Your task to perform on an android device: What is the news today? Image 0: 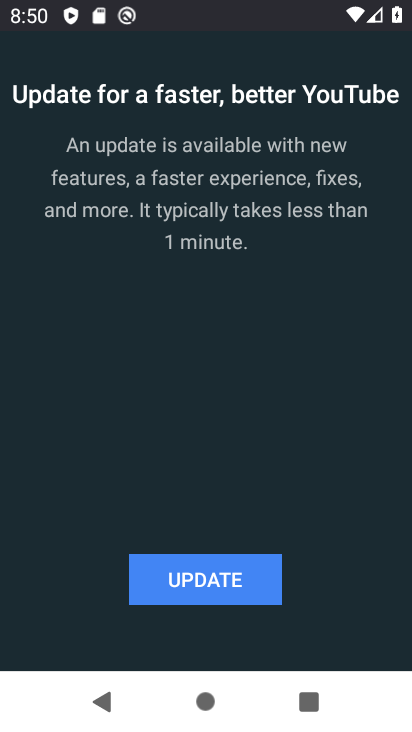
Step 0: press home button
Your task to perform on an android device: What is the news today? Image 1: 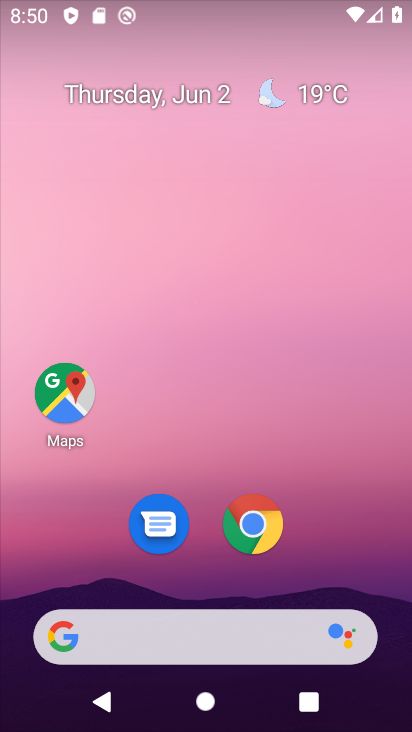
Step 1: click (217, 630)
Your task to perform on an android device: What is the news today? Image 2: 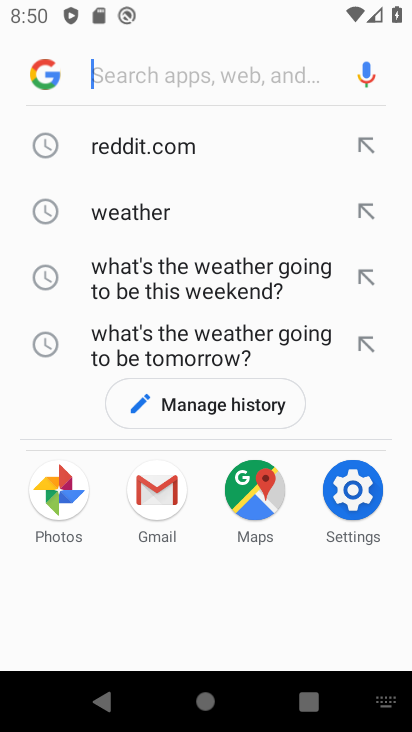
Step 2: type "News"
Your task to perform on an android device: What is the news today? Image 3: 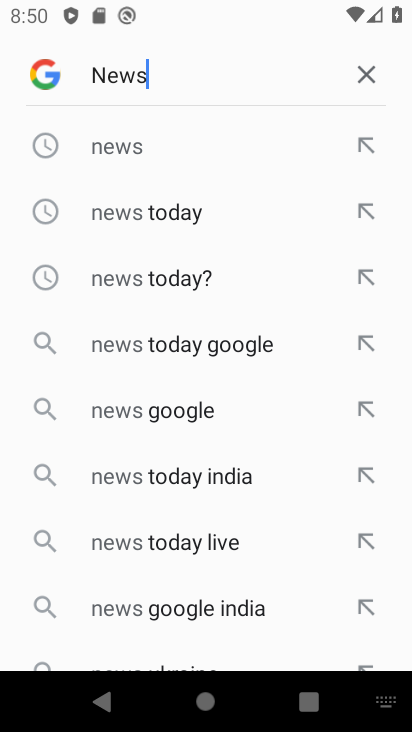
Step 3: click (175, 214)
Your task to perform on an android device: What is the news today? Image 4: 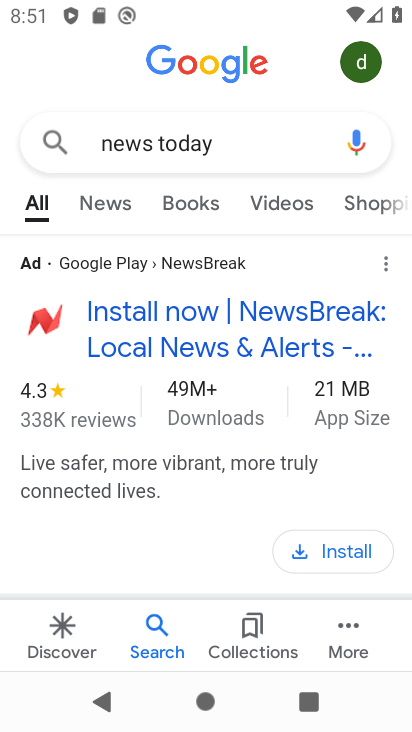
Step 4: click (120, 197)
Your task to perform on an android device: What is the news today? Image 5: 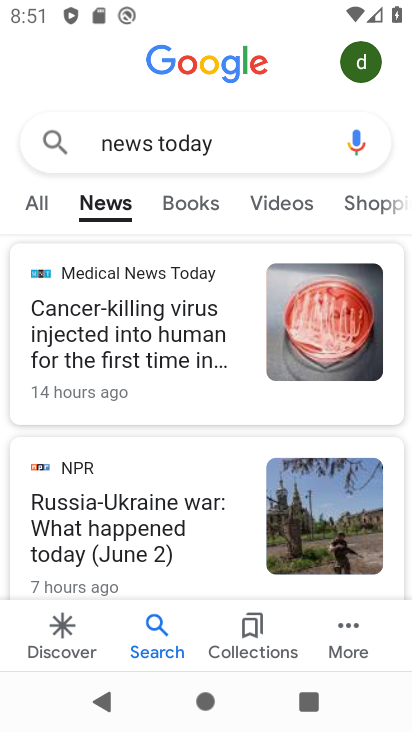
Step 5: task complete